Your task to perform on an android device: turn off javascript in the chrome app Image 0: 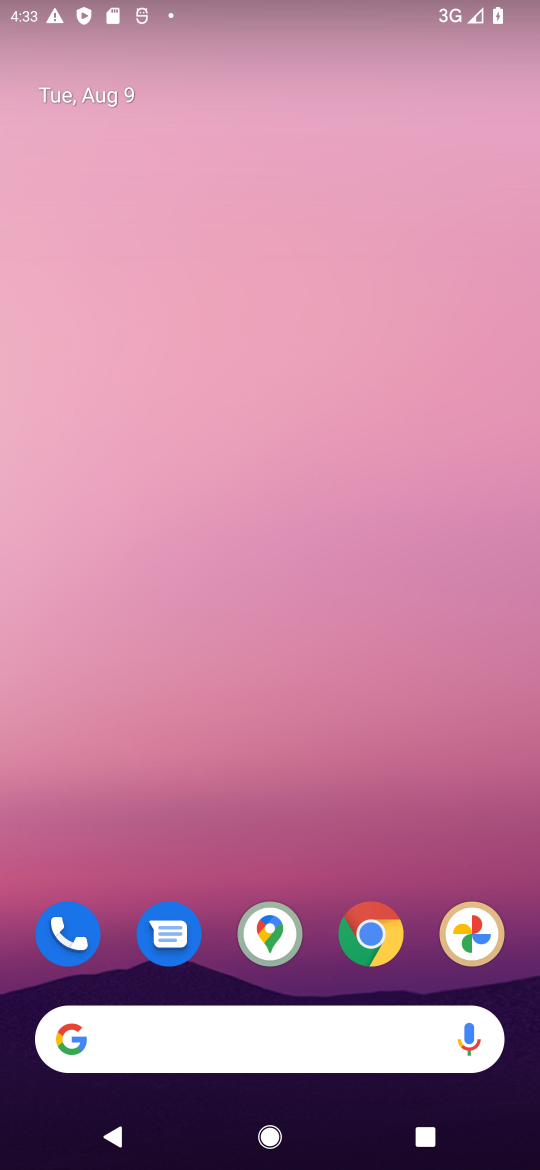
Step 0: click (357, 915)
Your task to perform on an android device: turn off javascript in the chrome app Image 1: 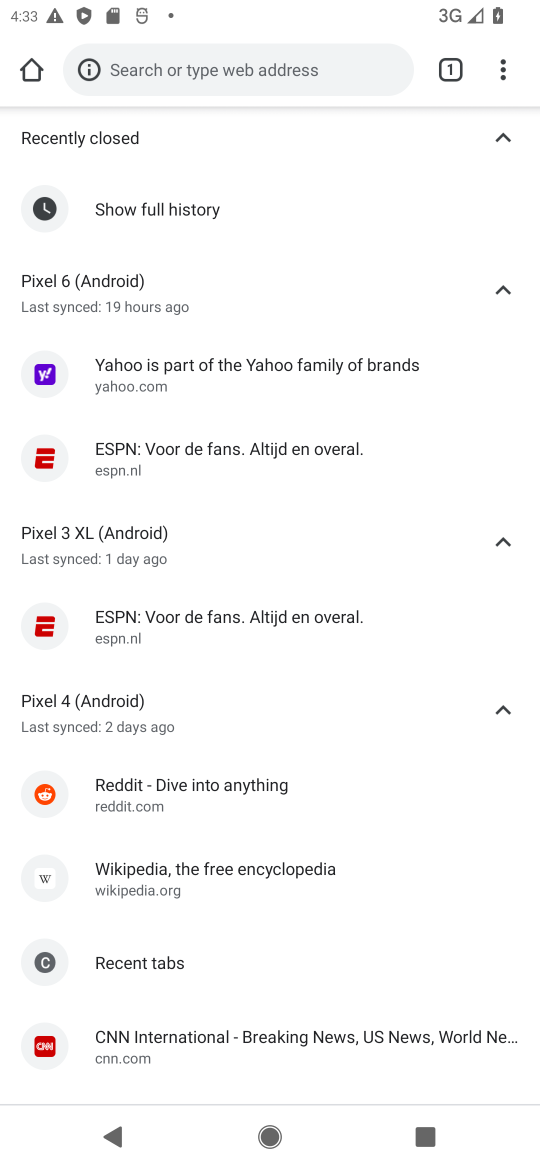
Step 1: click (508, 60)
Your task to perform on an android device: turn off javascript in the chrome app Image 2: 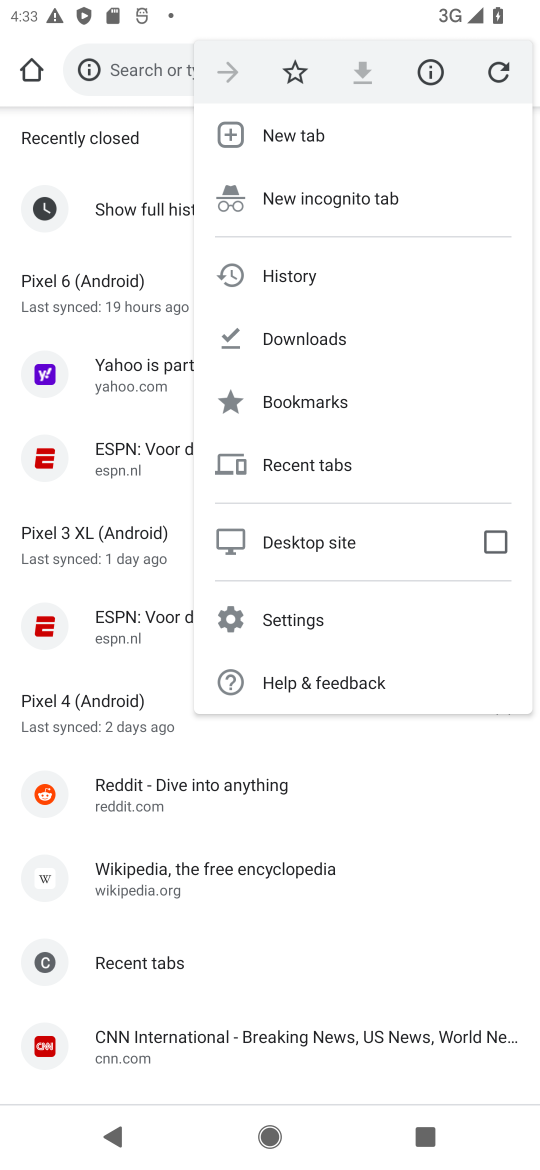
Step 2: click (386, 619)
Your task to perform on an android device: turn off javascript in the chrome app Image 3: 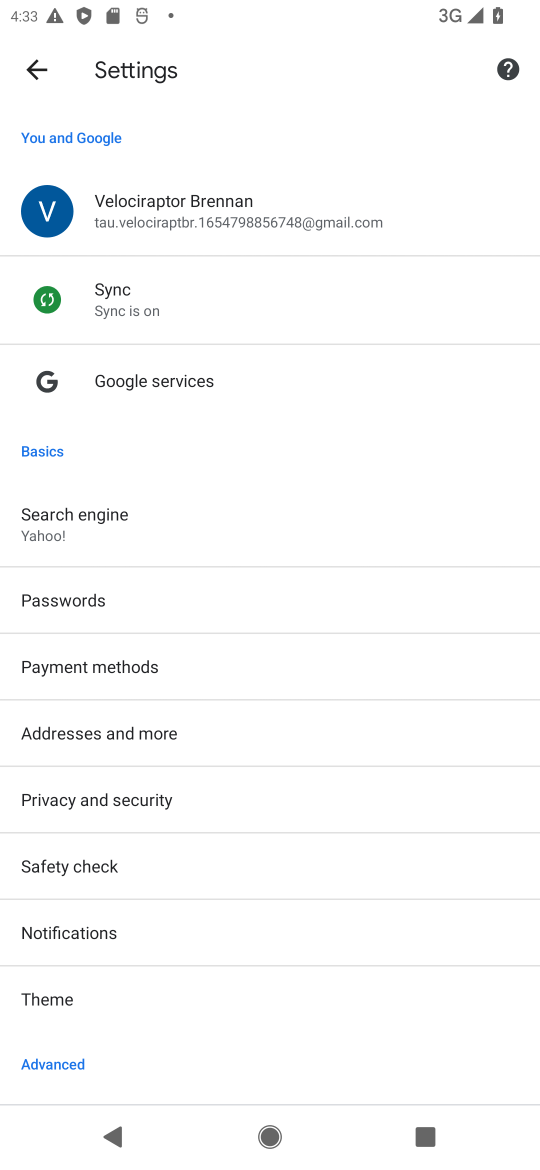
Step 3: drag from (166, 968) to (251, 495)
Your task to perform on an android device: turn off javascript in the chrome app Image 4: 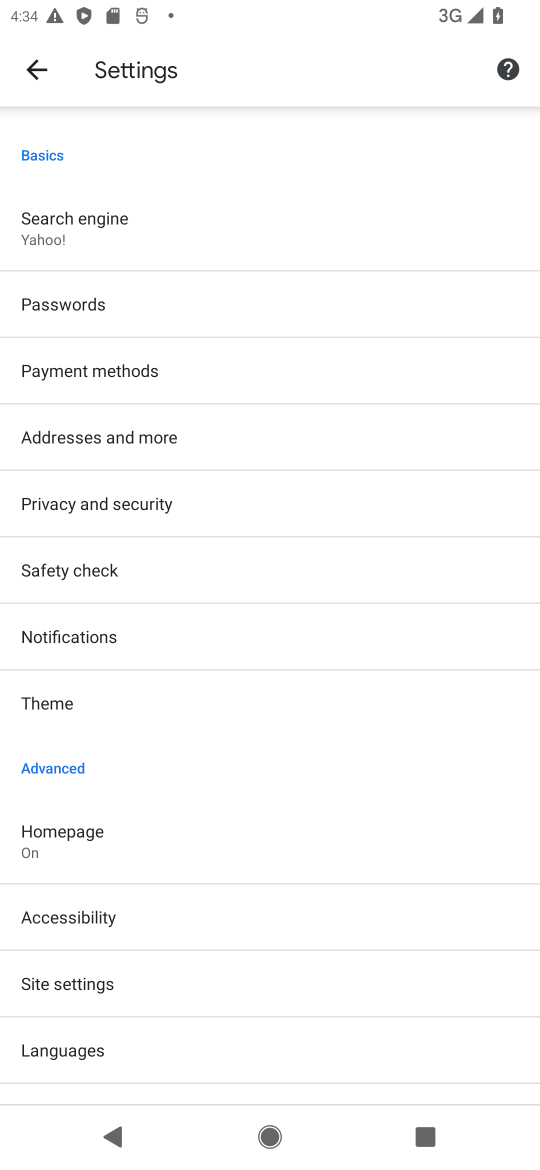
Step 4: click (237, 981)
Your task to perform on an android device: turn off javascript in the chrome app Image 5: 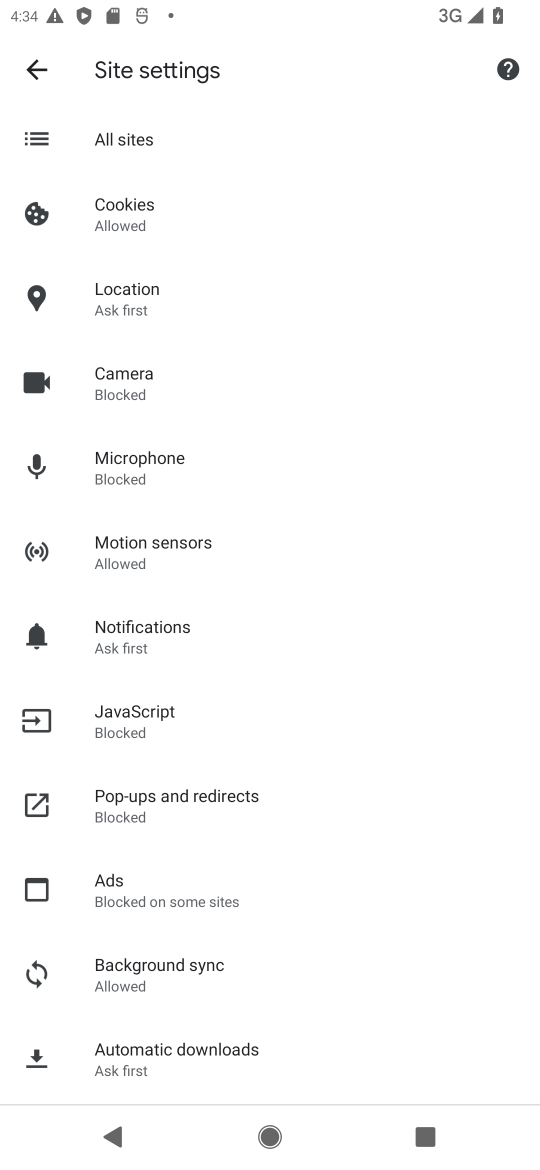
Step 5: click (198, 718)
Your task to perform on an android device: turn off javascript in the chrome app Image 6: 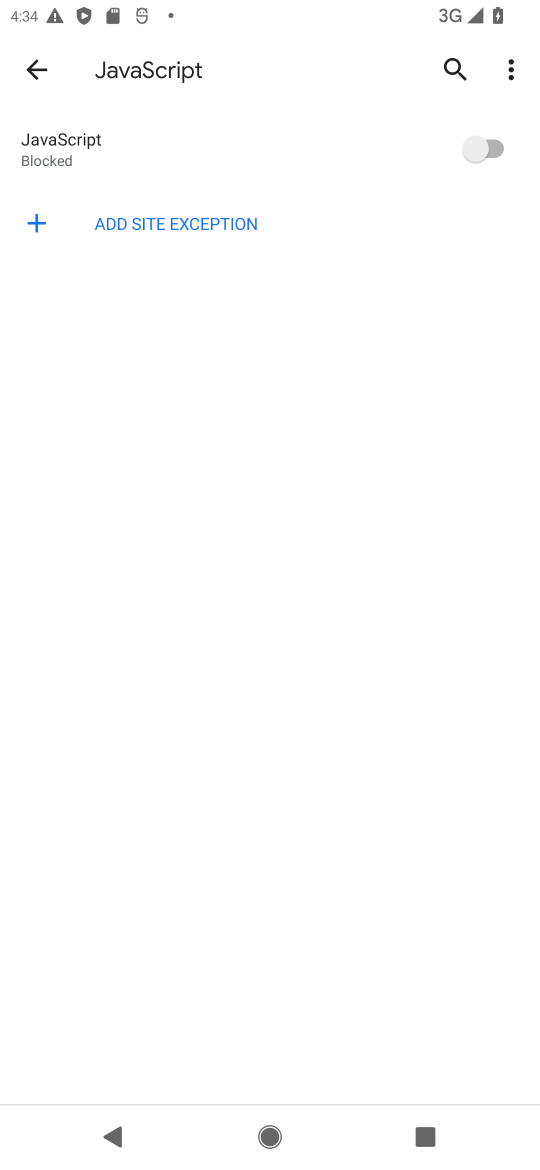
Step 6: click (472, 132)
Your task to perform on an android device: turn off javascript in the chrome app Image 7: 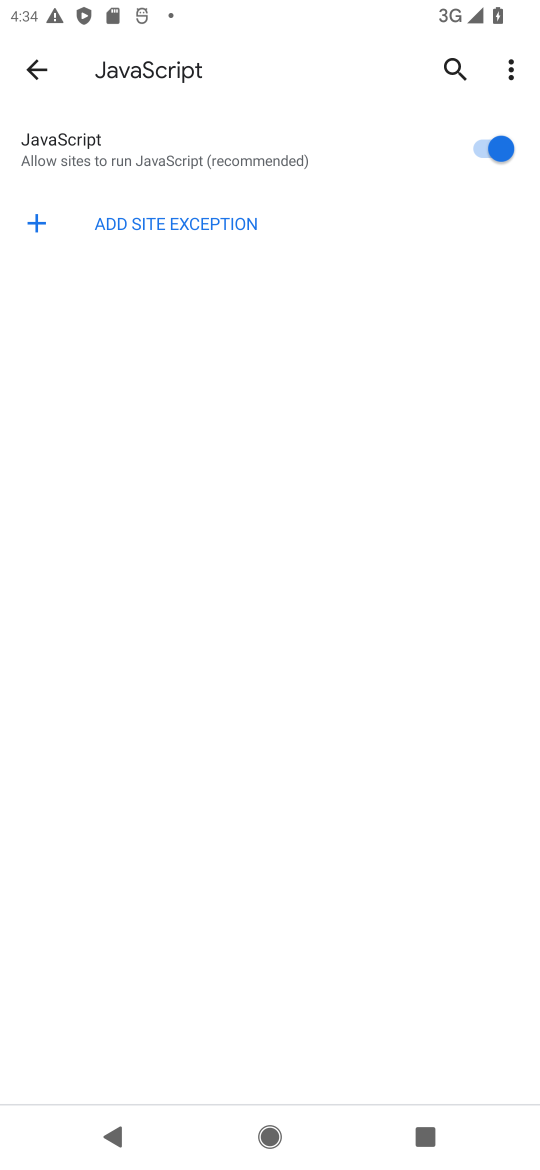
Step 7: task complete